Your task to perform on an android device: Open the stopwatch Image 0: 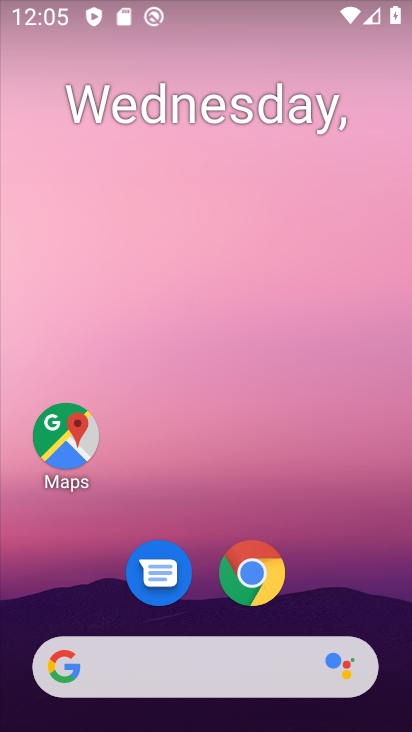
Step 0: press back button
Your task to perform on an android device: Open the stopwatch Image 1: 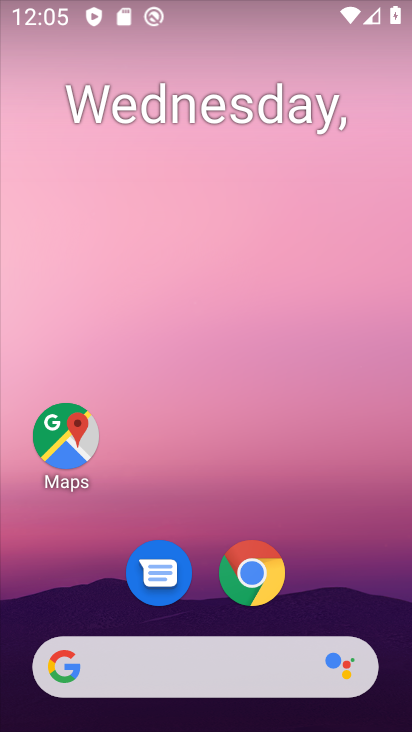
Step 1: click (229, 66)
Your task to perform on an android device: Open the stopwatch Image 2: 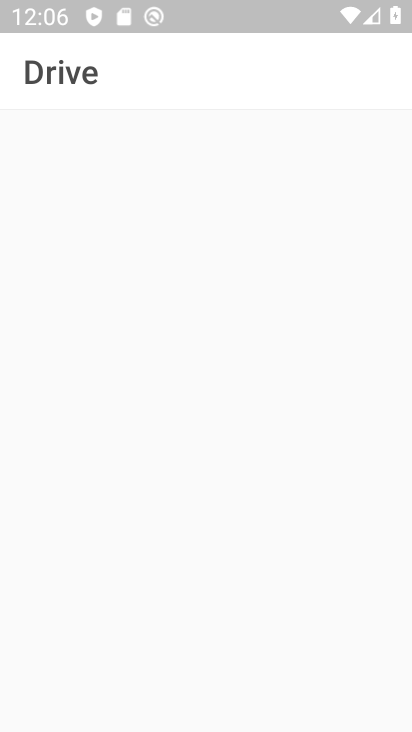
Step 2: press back button
Your task to perform on an android device: Open the stopwatch Image 3: 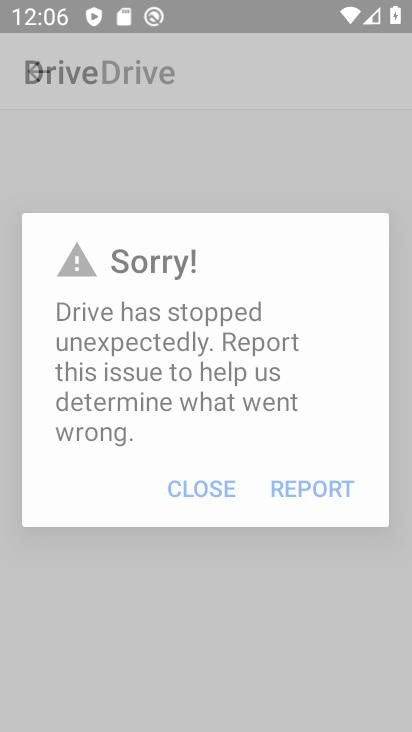
Step 3: press back button
Your task to perform on an android device: Open the stopwatch Image 4: 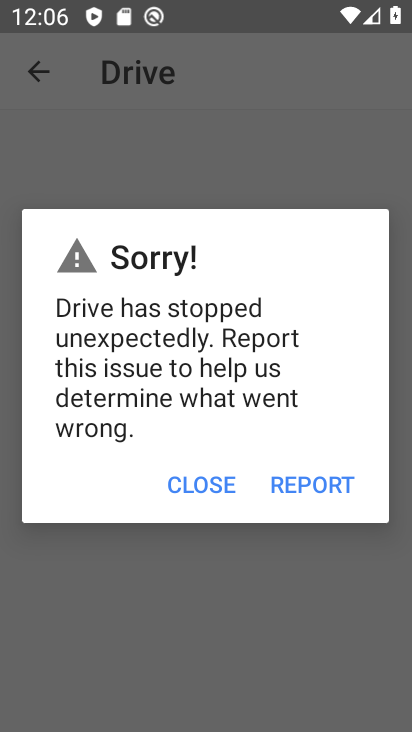
Step 4: press home button
Your task to perform on an android device: Open the stopwatch Image 5: 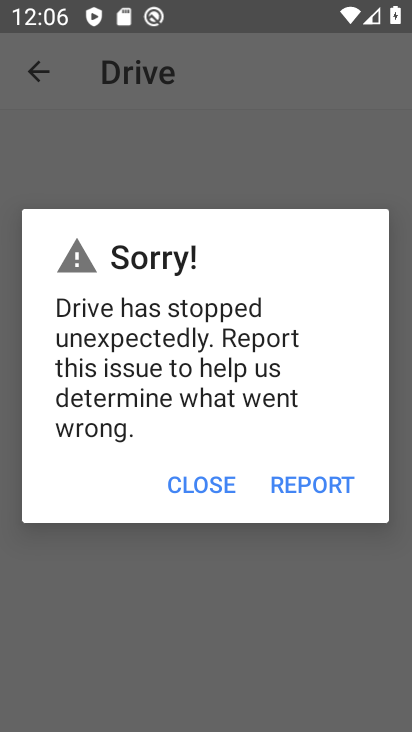
Step 5: press home button
Your task to perform on an android device: Open the stopwatch Image 6: 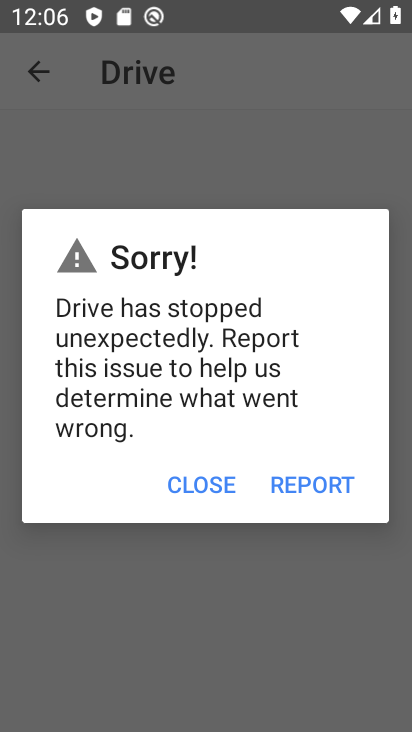
Step 6: click (194, 472)
Your task to perform on an android device: Open the stopwatch Image 7: 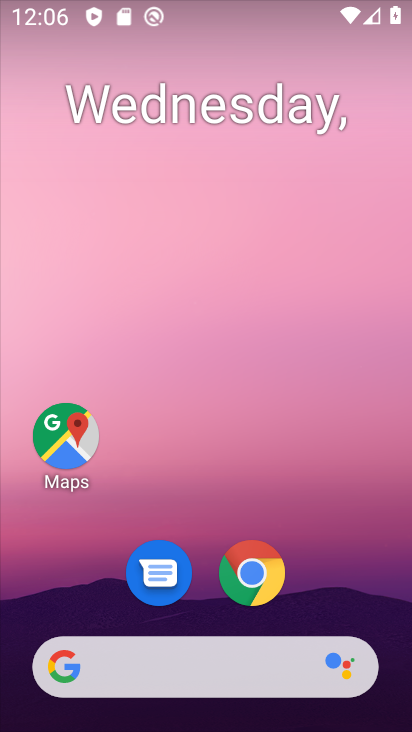
Step 7: click (199, 494)
Your task to perform on an android device: Open the stopwatch Image 8: 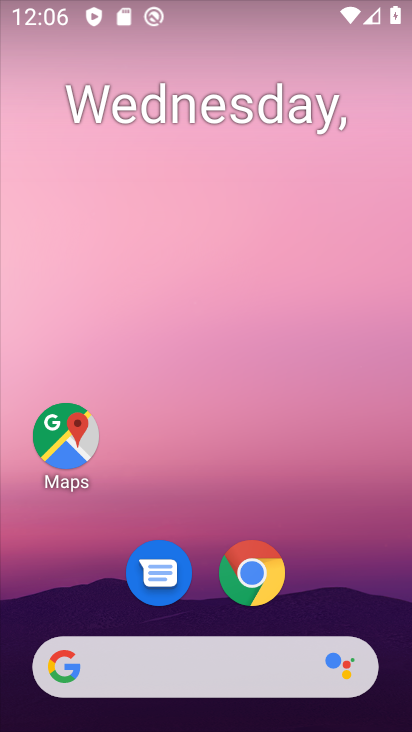
Step 8: drag from (352, 678) to (229, 34)
Your task to perform on an android device: Open the stopwatch Image 9: 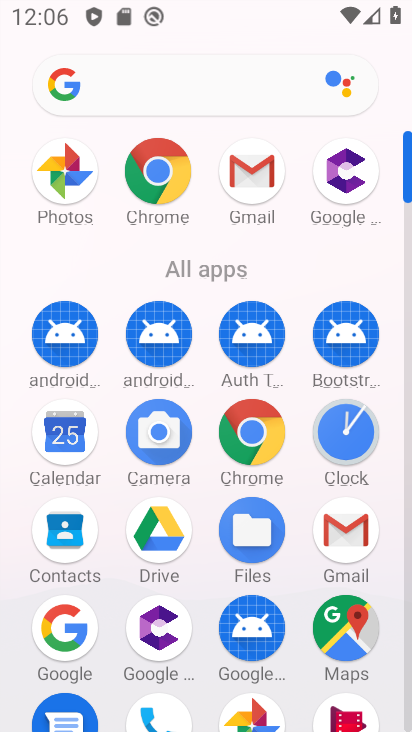
Step 9: click (345, 441)
Your task to perform on an android device: Open the stopwatch Image 10: 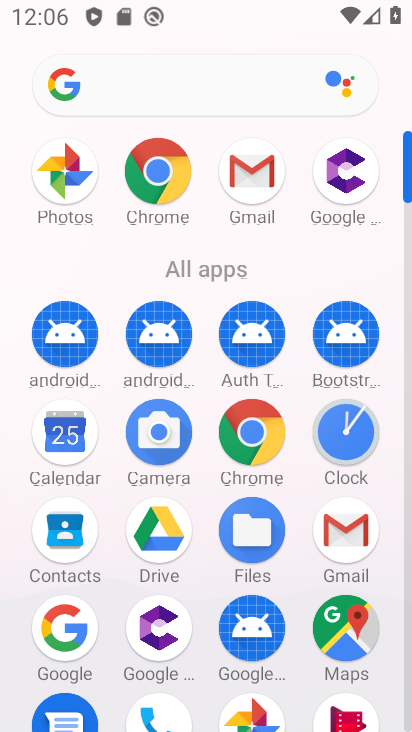
Step 10: click (344, 442)
Your task to perform on an android device: Open the stopwatch Image 11: 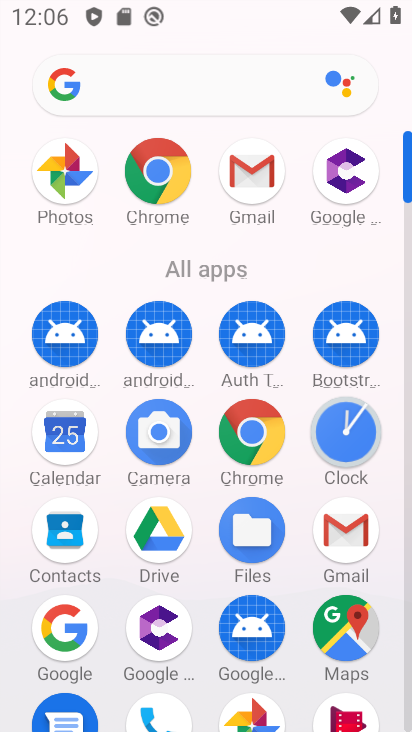
Step 11: click (344, 442)
Your task to perform on an android device: Open the stopwatch Image 12: 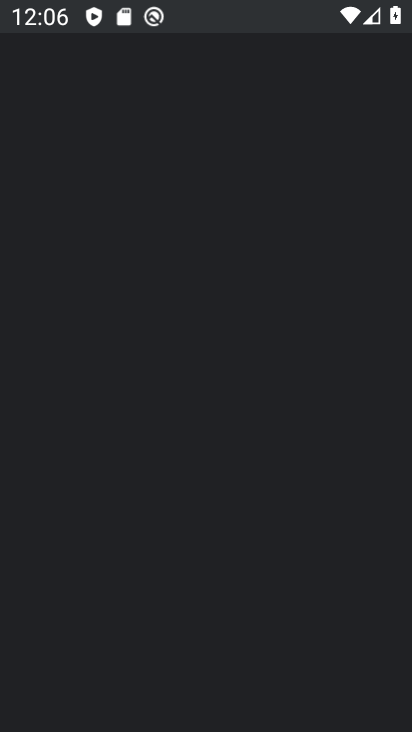
Step 12: click (344, 442)
Your task to perform on an android device: Open the stopwatch Image 13: 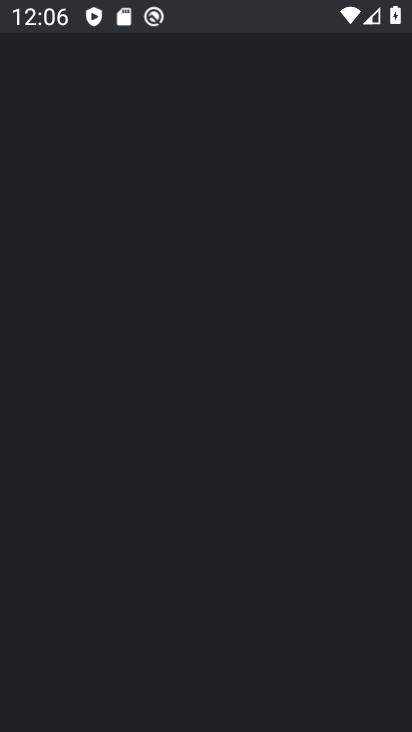
Step 13: click (345, 441)
Your task to perform on an android device: Open the stopwatch Image 14: 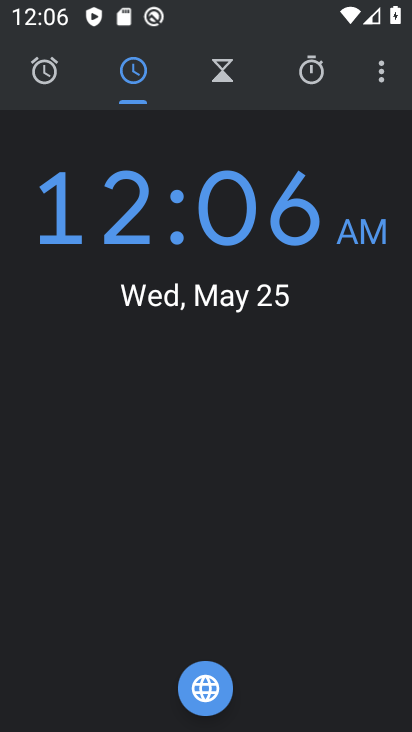
Step 14: click (374, 76)
Your task to perform on an android device: Open the stopwatch Image 15: 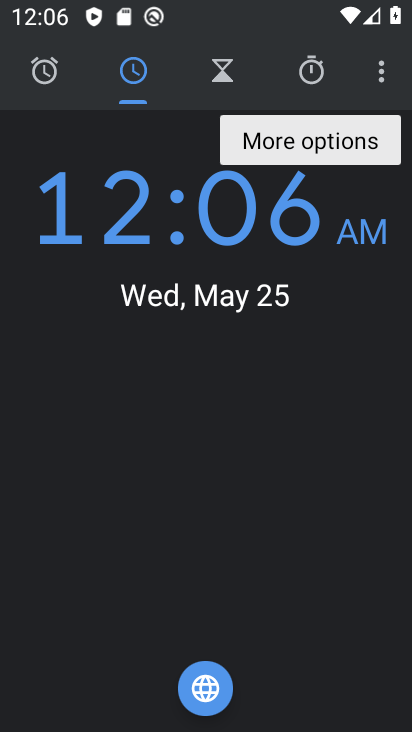
Step 15: click (266, 438)
Your task to perform on an android device: Open the stopwatch Image 16: 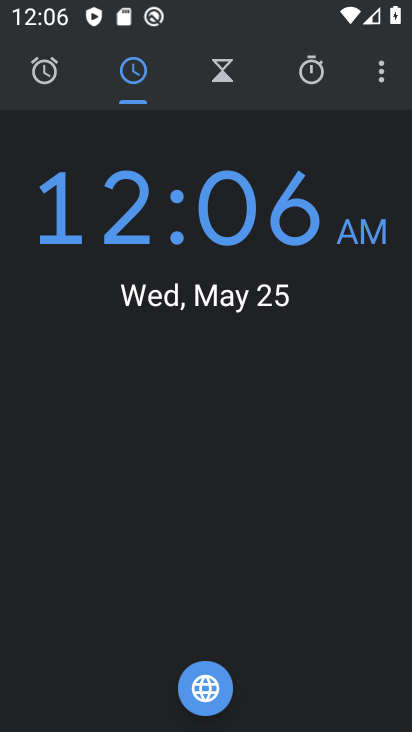
Step 16: click (314, 68)
Your task to perform on an android device: Open the stopwatch Image 17: 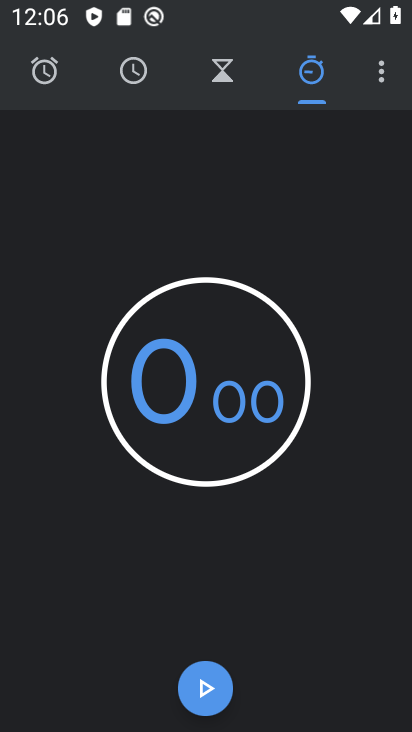
Step 17: click (314, 68)
Your task to perform on an android device: Open the stopwatch Image 18: 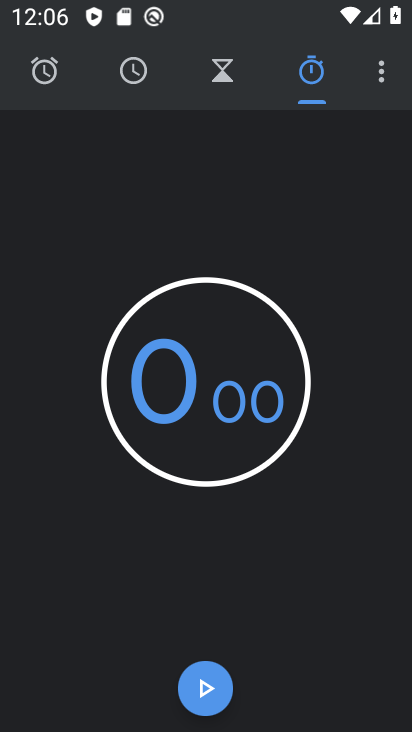
Step 18: click (202, 686)
Your task to perform on an android device: Open the stopwatch Image 19: 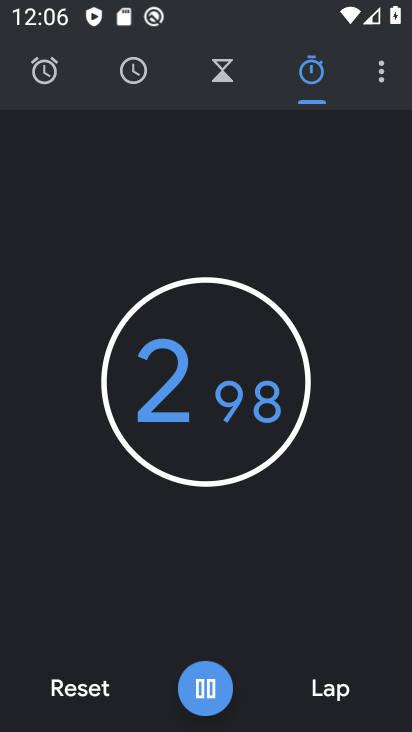
Step 19: click (210, 686)
Your task to perform on an android device: Open the stopwatch Image 20: 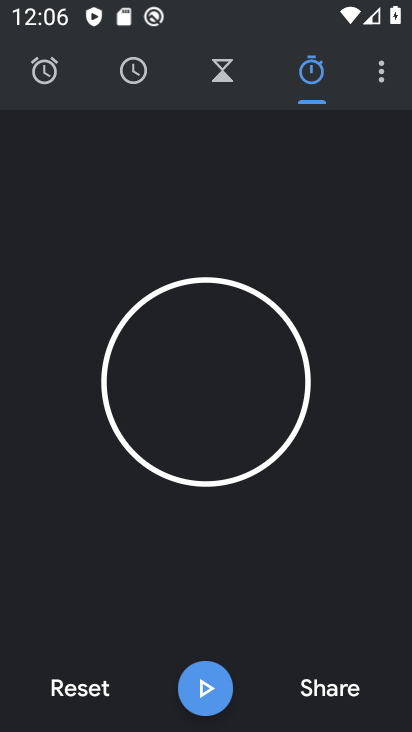
Step 20: click (201, 687)
Your task to perform on an android device: Open the stopwatch Image 21: 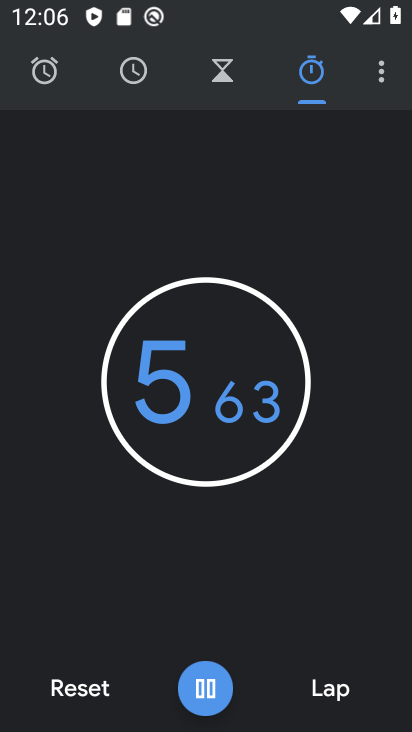
Step 21: click (205, 682)
Your task to perform on an android device: Open the stopwatch Image 22: 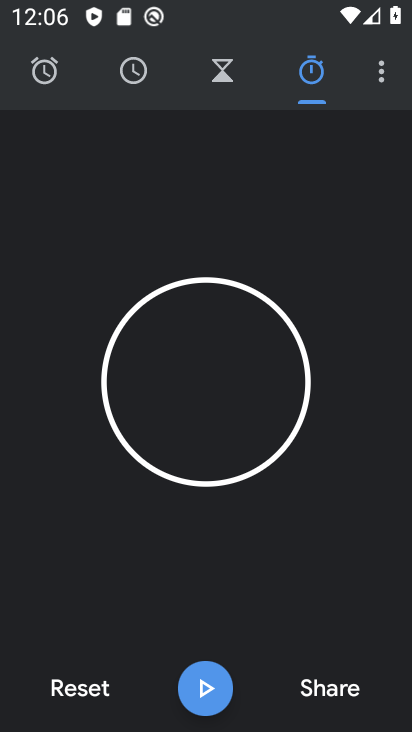
Step 22: task complete